Your task to perform on an android device: Search for sushi restaurants on Maps Image 0: 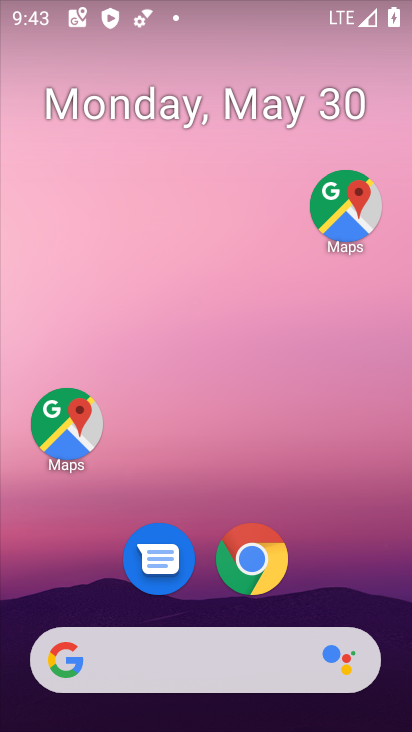
Step 0: click (74, 425)
Your task to perform on an android device: Search for sushi restaurants on Maps Image 1: 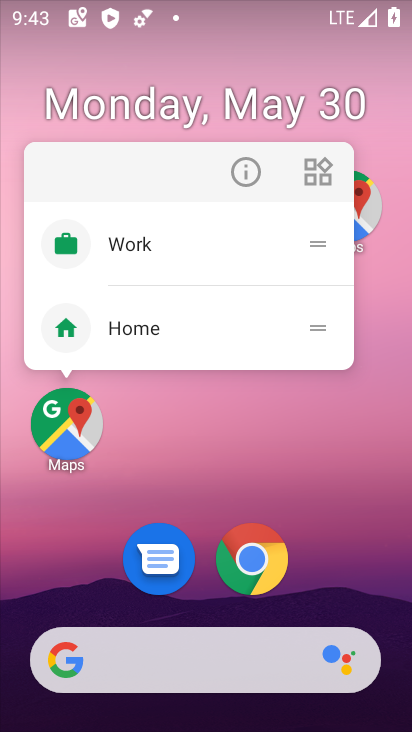
Step 1: click (64, 429)
Your task to perform on an android device: Search for sushi restaurants on Maps Image 2: 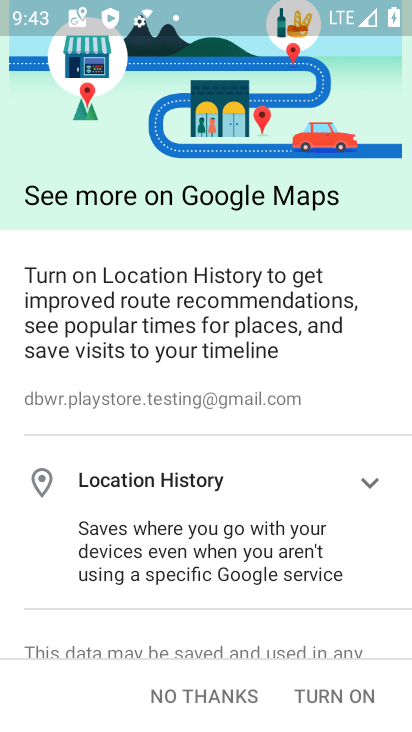
Step 2: click (190, 694)
Your task to perform on an android device: Search for sushi restaurants on Maps Image 3: 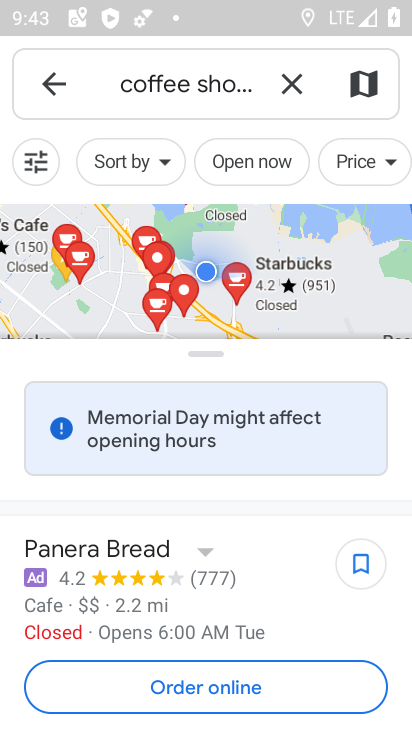
Step 3: click (178, 88)
Your task to perform on an android device: Search for sushi restaurants on Maps Image 4: 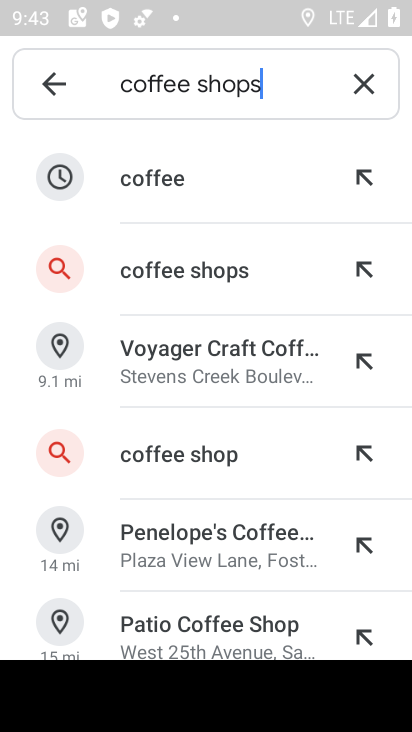
Step 4: click (359, 81)
Your task to perform on an android device: Search for sushi restaurants on Maps Image 5: 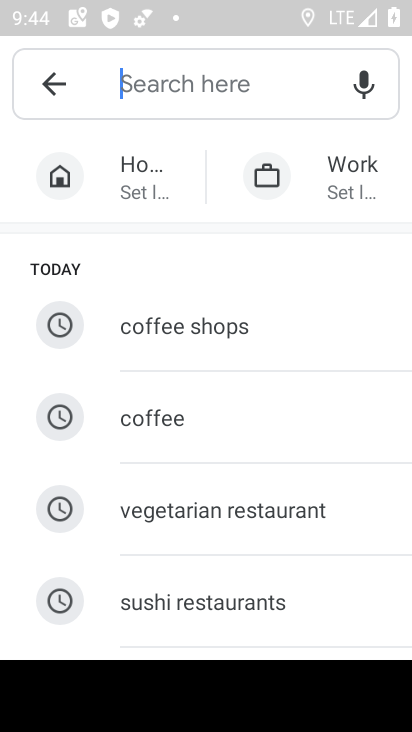
Step 5: click (271, 603)
Your task to perform on an android device: Search for sushi restaurants on Maps Image 6: 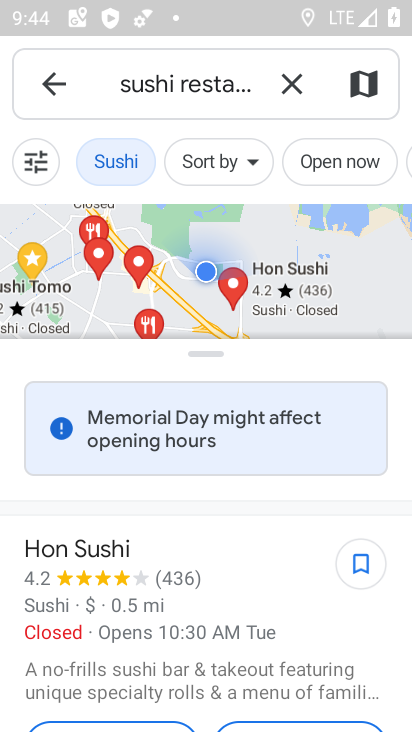
Step 6: task complete